Your task to perform on an android device: turn off smart reply in the gmail app Image 0: 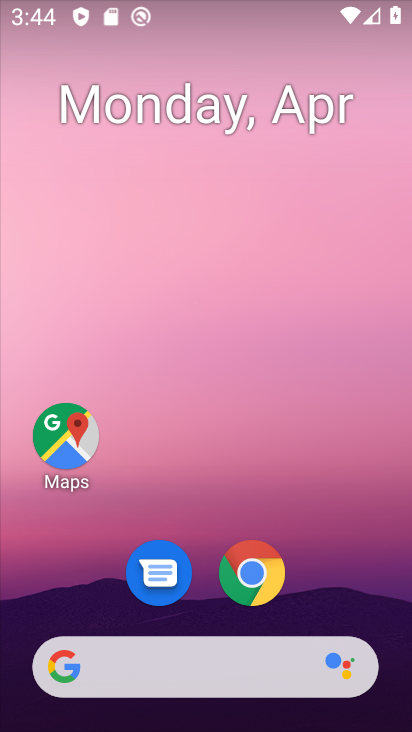
Step 0: drag from (339, 594) to (332, 117)
Your task to perform on an android device: turn off smart reply in the gmail app Image 1: 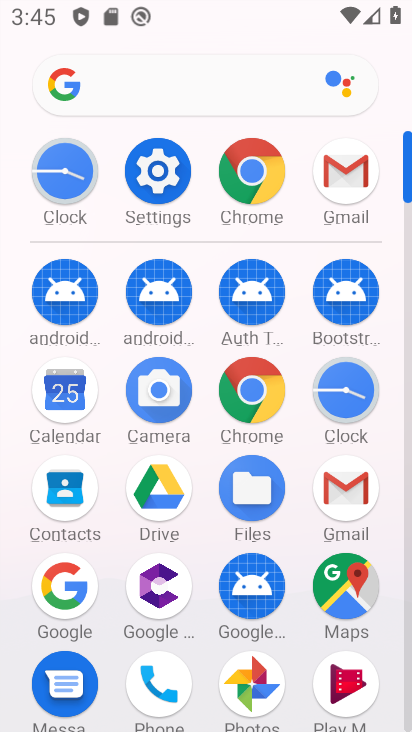
Step 1: click (348, 498)
Your task to perform on an android device: turn off smart reply in the gmail app Image 2: 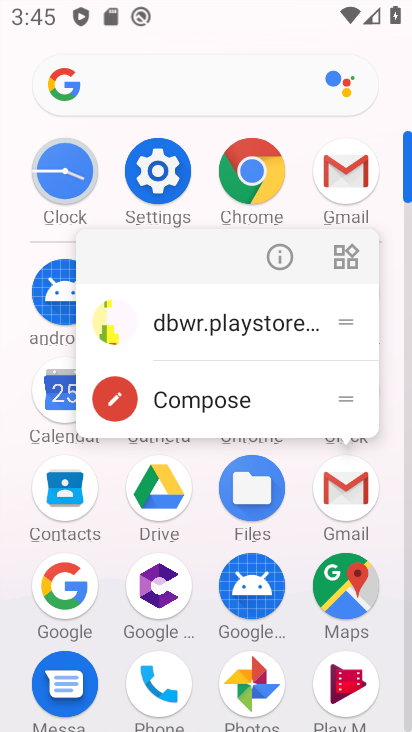
Step 2: click (335, 479)
Your task to perform on an android device: turn off smart reply in the gmail app Image 3: 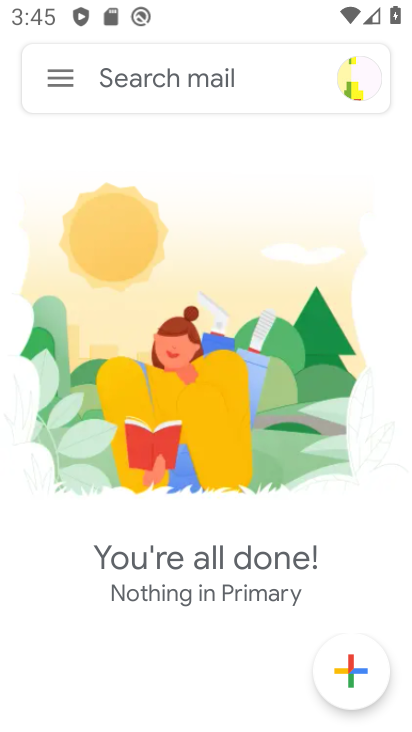
Step 3: click (51, 82)
Your task to perform on an android device: turn off smart reply in the gmail app Image 4: 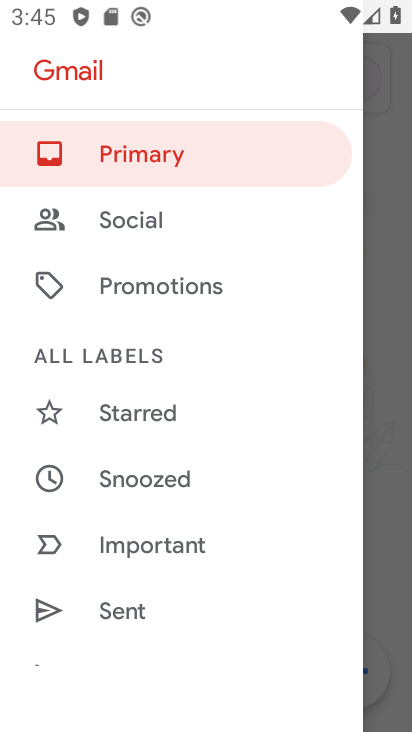
Step 4: drag from (277, 588) to (282, 434)
Your task to perform on an android device: turn off smart reply in the gmail app Image 5: 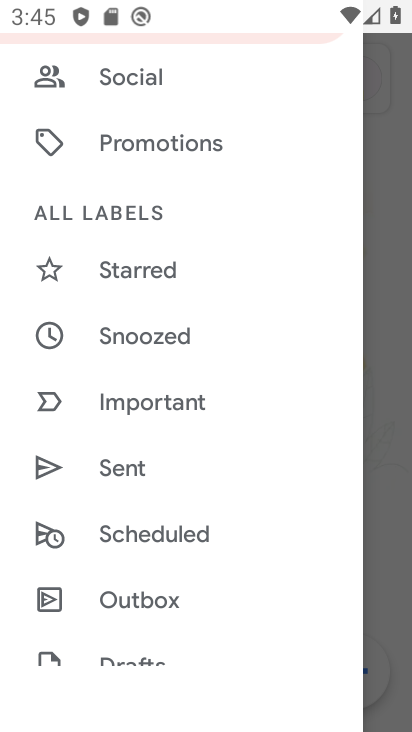
Step 5: drag from (261, 578) to (250, 395)
Your task to perform on an android device: turn off smart reply in the gmail app Image 6: 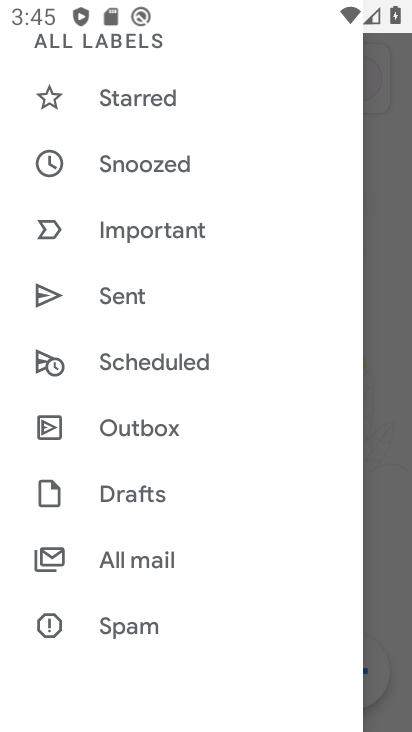
Step 6: drag from (233, 620) to (260, 397)
Your task to perform on an android device: turn off smart reply in the gmail app Image 7: 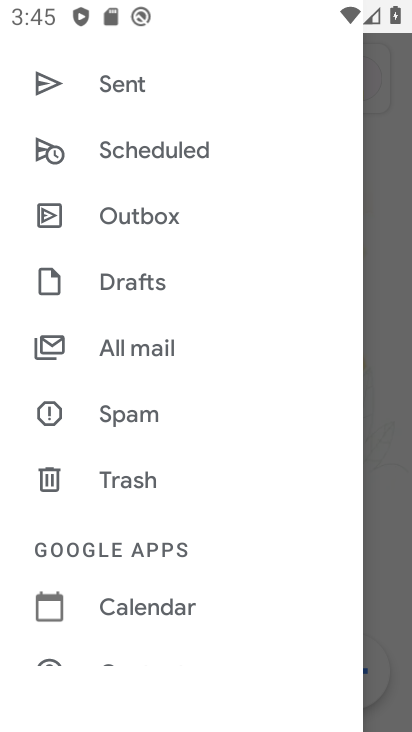
Step 7: drag from (245, 594) to (257, 390)
Your task to perform on an android device: turn off smart reply in the gmail app Image 8: 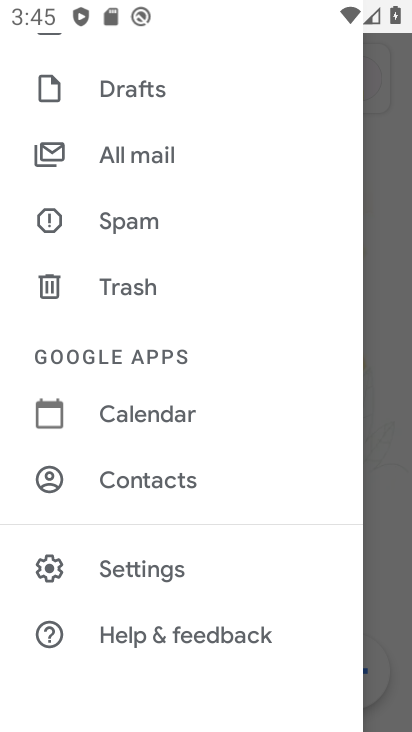
Step 8: click (182, 567)
Your task to perform on an android device: turn off smart reply in the gmail app Image 9: 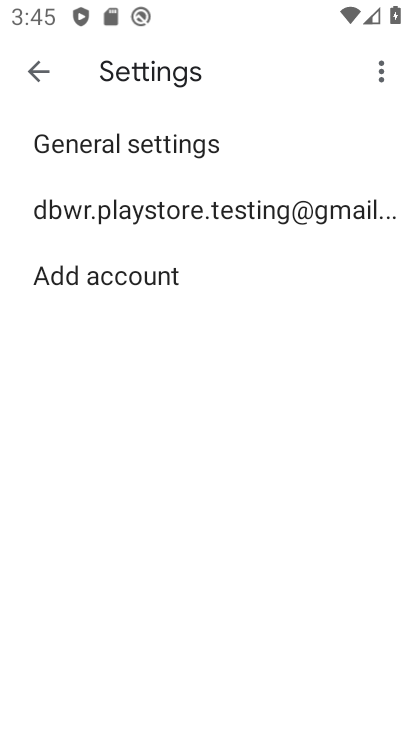
Step 9: click (228, 202)
Your task to perform on an android device: turn off smart reply in the gmail app Image 10: 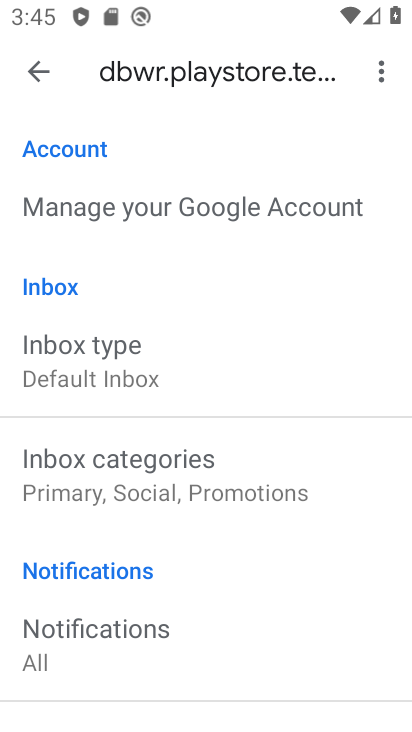
Step 10: task complete